Your task to perform on an android device: Open Google Maps and go to "Timeline" Image 0: 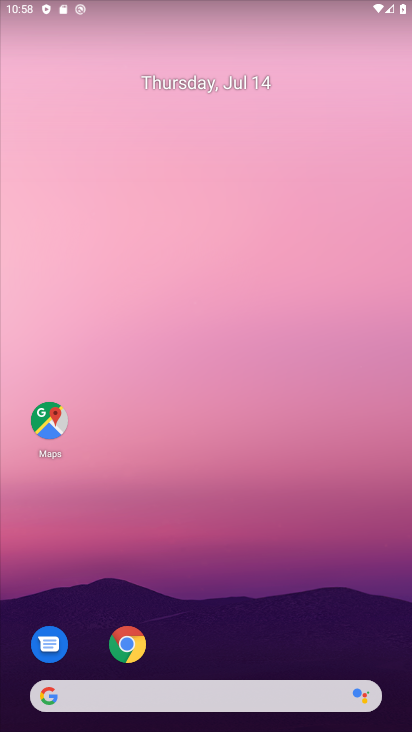
Step 0: drag from (387, 649) to (180, 86)
Your task to perform on an android device: Open Google Maps and go to "Timeline" Image 1: 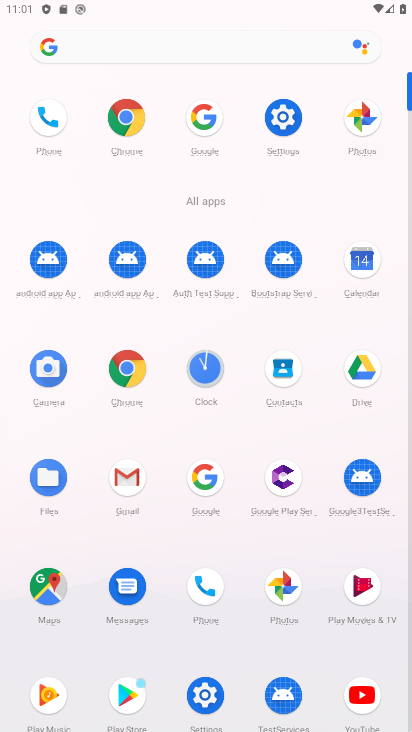
Step 1: click (56, 592)
Your task to perform on an android device: Open Google Maps and go to "Timeline" Image 2: 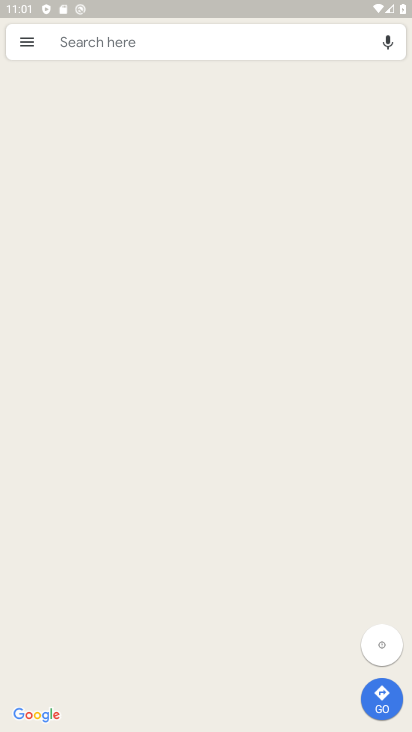
Step 2: click (24, 43)
Your task to perform on an android device: Open Google Maps and go to "Timeline" Image 3: 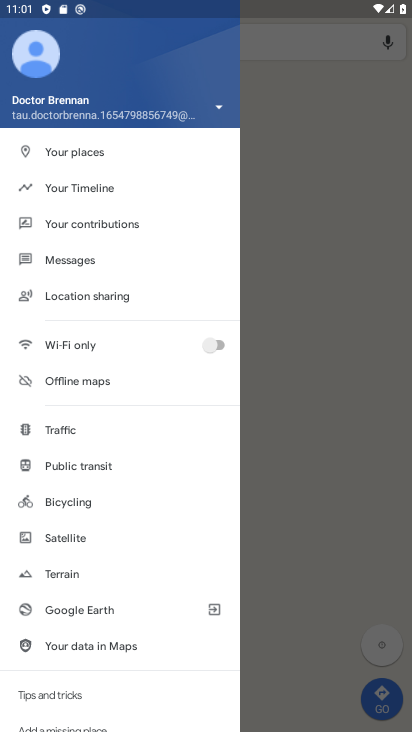
Step 3: click (87, 184)
Your task to perform on an android device: Open Google Maps and go to "Timeline" Image 4: 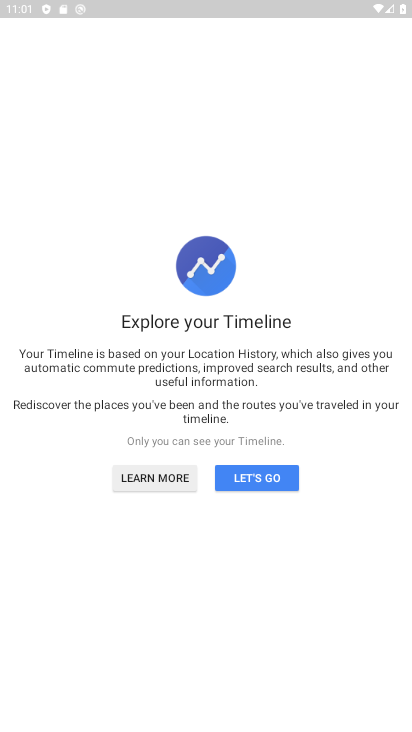
Step 4: task complete